Your task to perform on an android device: Open Amazon Image 0: 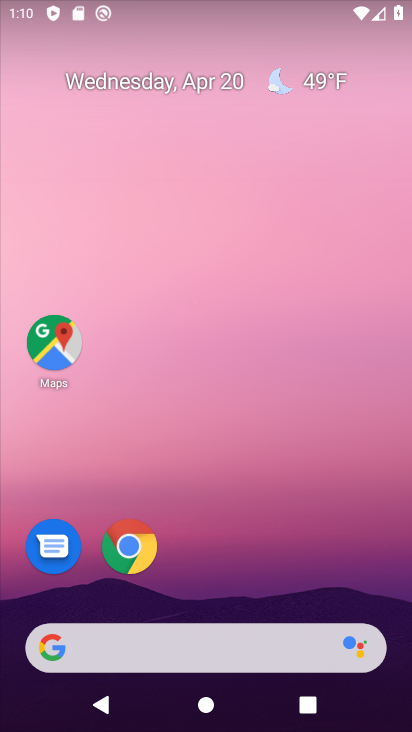
Step 0: click (123, 533)
Your task to perform on an android device: Open Amazon Image 1: 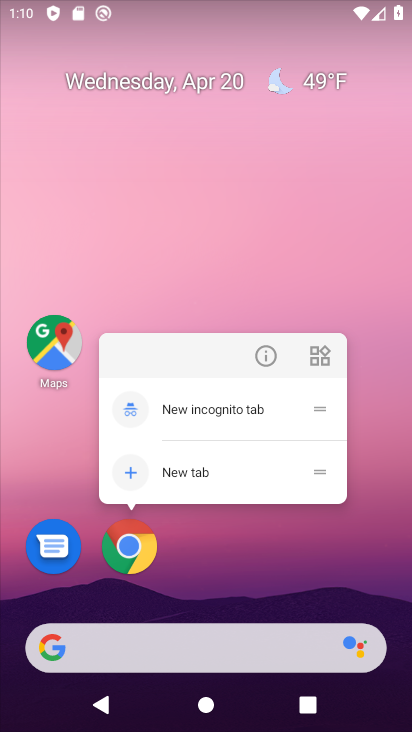
Step 1: click (135, 540)
Your task to perform on an android device: Open Amazon Image 2: 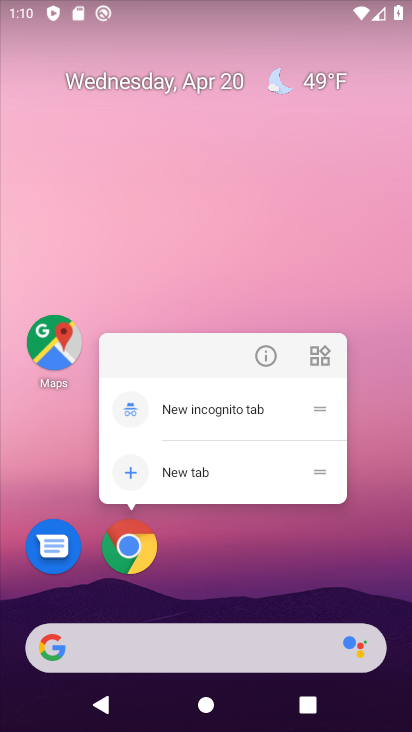
Step 2: click (135, 540)
Your task to perform on an android device: Open Amazon Image 3: 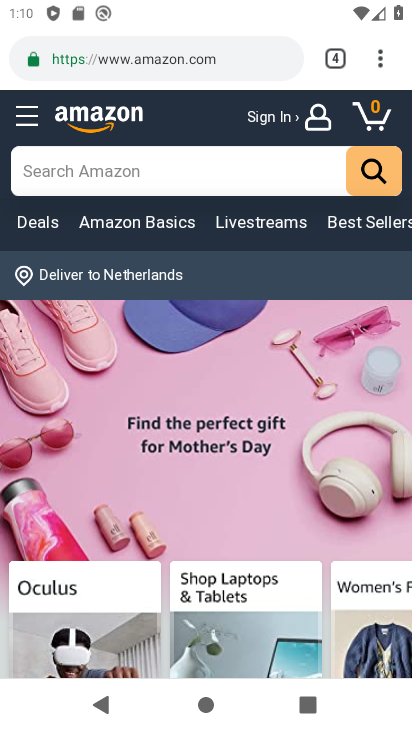
Step 3: task complete